Your task to perform on an android device: Go to calendar. Show me events next week Image 0: 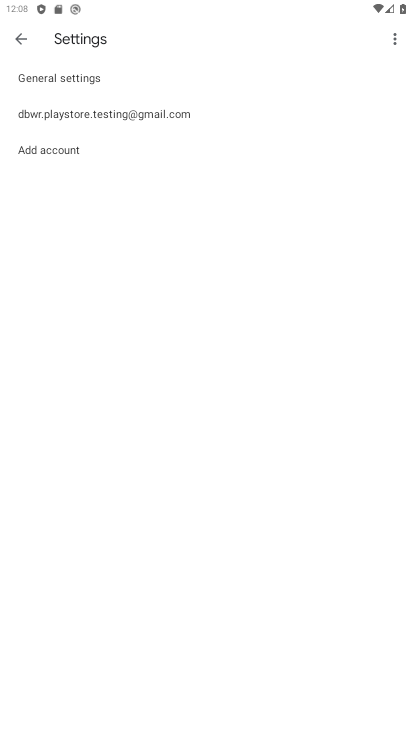
Step 0: press home button
Your task to perform on an android device: Go to calendar. Show me events next week Image 1: 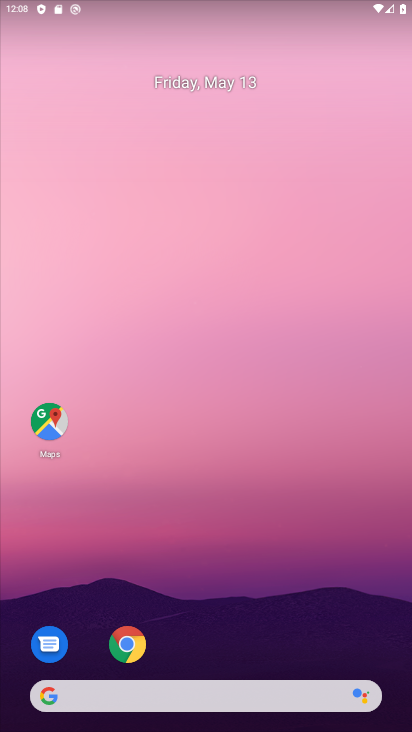
Step 1: click (182, 79)
Your task to perform on an android device: Go to calendar. Show me events next week Image 2: 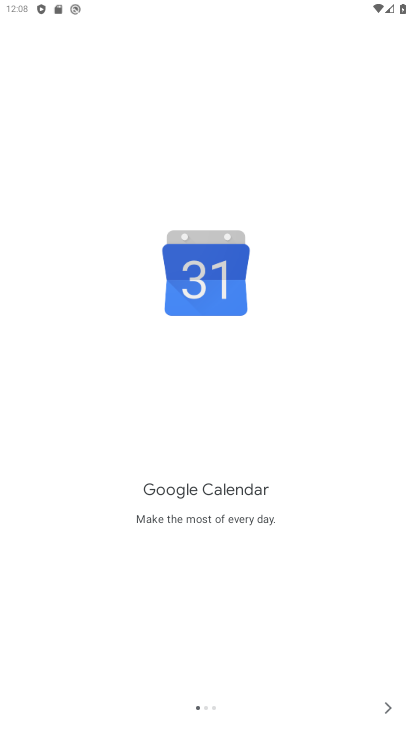
Step 2: click (385, 704)
Your task to perform on an android device: Go to calendar. Show me events next week Image 3: 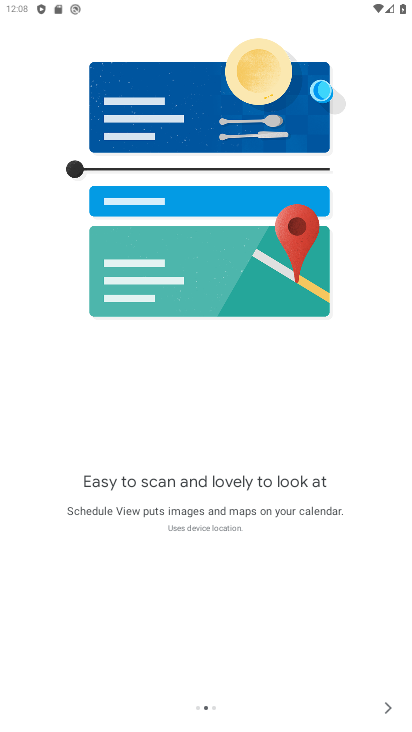
Step 3: click (385, 704)
Your task to perform on an android device: Go to calendar. Show me events next week Image 4: 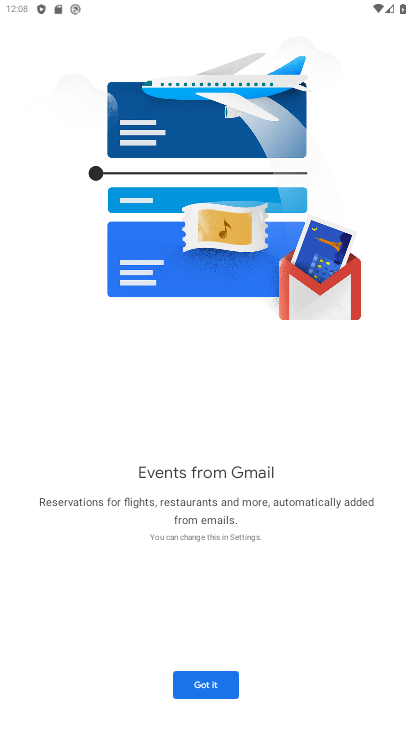
Step 4: click (212, 686)
Your task to perform on an android device: Go to calendar. Show me events next week Image 5: 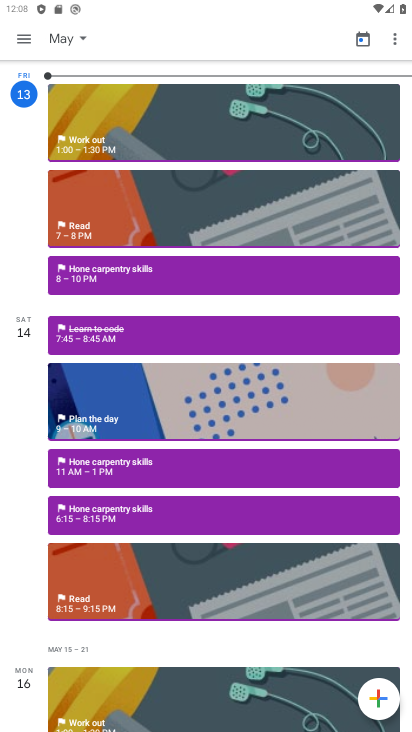
Step 5: click (24, 39)
Your task to perform on an android device: Go to calendar. Show me events next week Image 6: 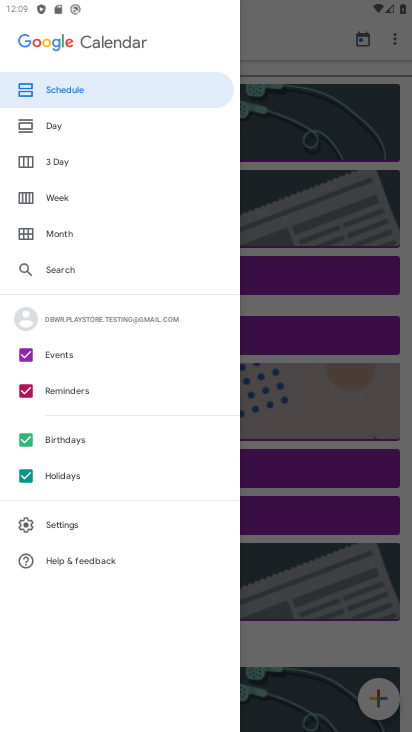
Step 6: click (72, 194)
Your task to perform on an android device: Go to calendar. Show me events next week Image 7: 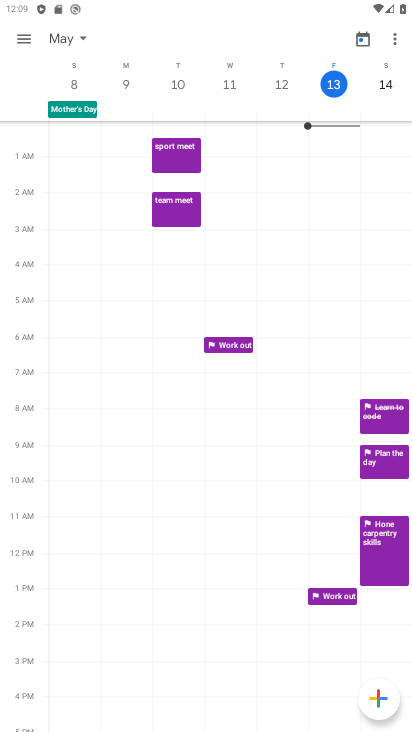
Step 7: click (80, 39)
Your task to perform on an android device: Go to calendar. Show me events next week Image 8: 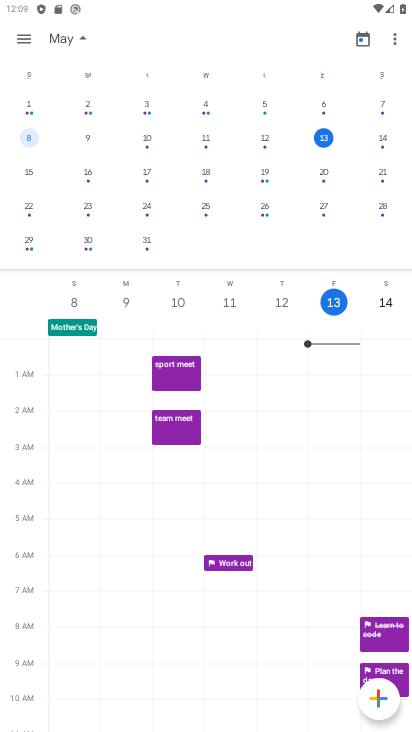
Step 8: click (261, 174)
Your task to perform on an android device: Go to calendar. Show me events next week Image 9: 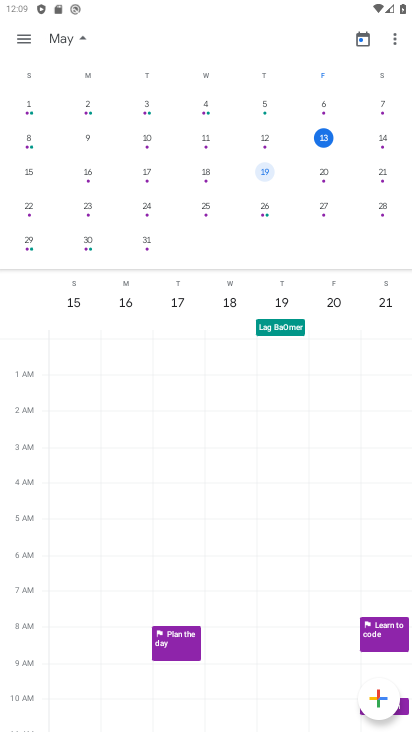
Step 9: task complete